Your task to perform on an android device: change the upload size in google photos Image 0: 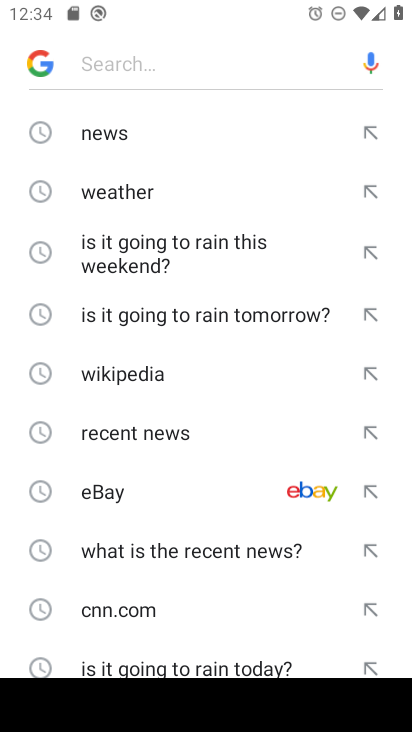
Step 0: press home button
Your task to perform on an android device: change the upload size in google photos Image 1: 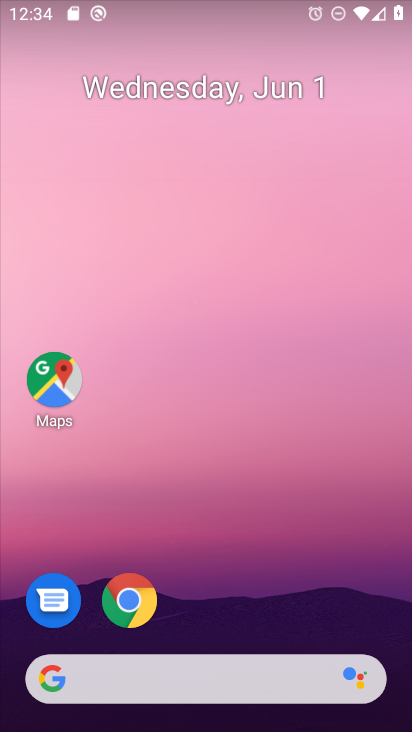
Step 1: drag from (226, 628) to (257, 190)
Your task to perform on an android device: change the upload size in google photos Image 2: 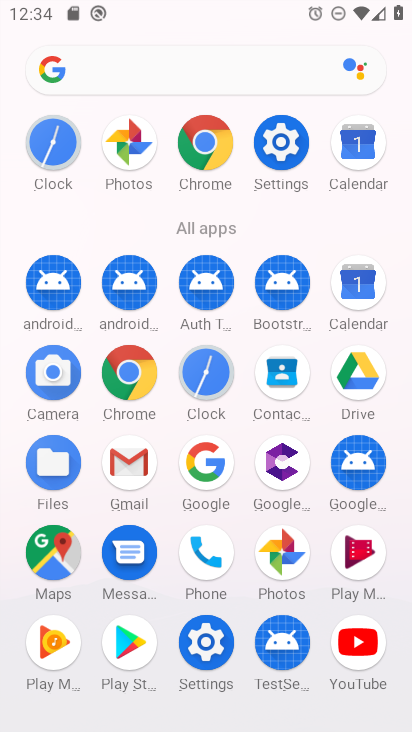
Step 2: click (280, 542)
Your task to perform on an android device: change the upload size in google photos Image 3: 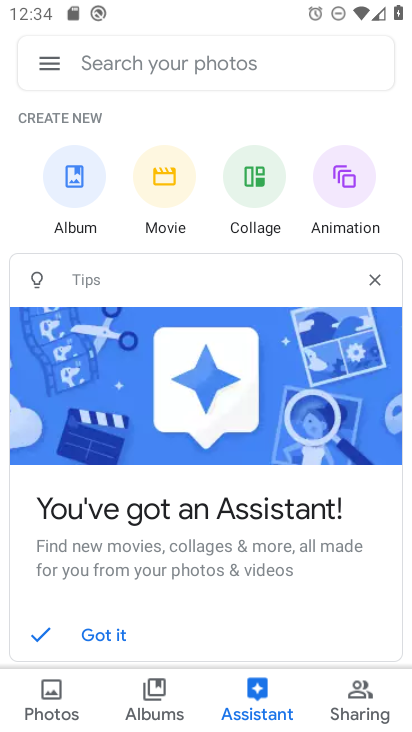
Step 3: click (45, 58)
Your task to perform on an android device: change the upload size in google photos Image 4: 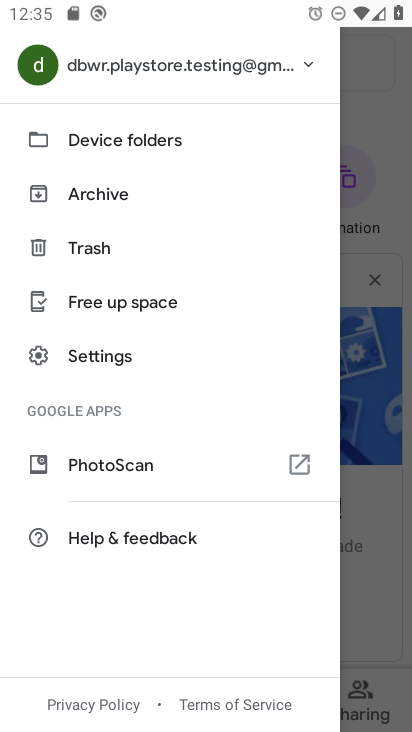
Step 4: click (142, 350)
Your task to perform on an android device: change the upload size in google photos Image 5: 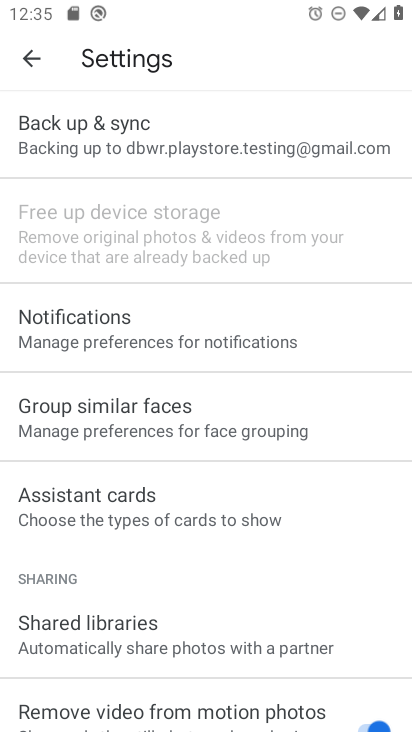
Step 5: click (110, 131)
Your task to perform on an android device: change the upload size in google photos Image 6: 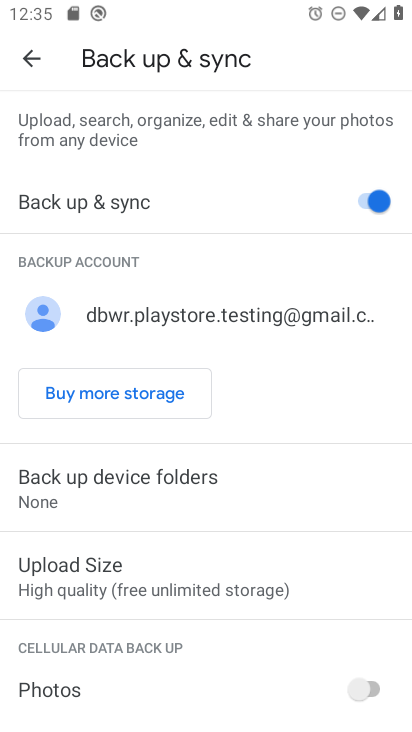
Step 6: click (126, 567)
Your task to perform on an android device: change the upload size in google photos Image 7: 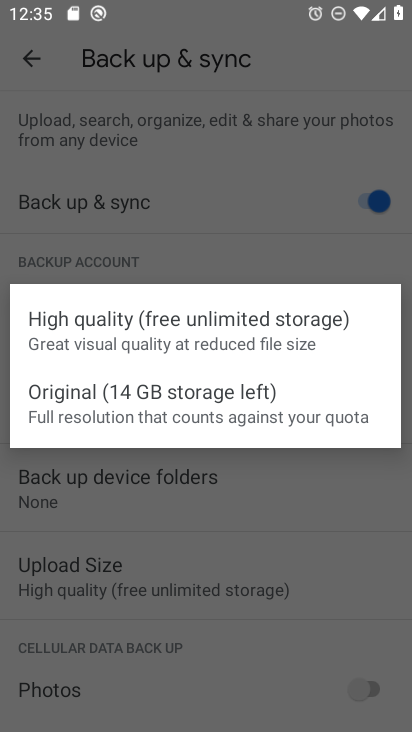
Step 7: click (148, 389)
Your task to perform on an android device: change the upload size in google photos Image 8: 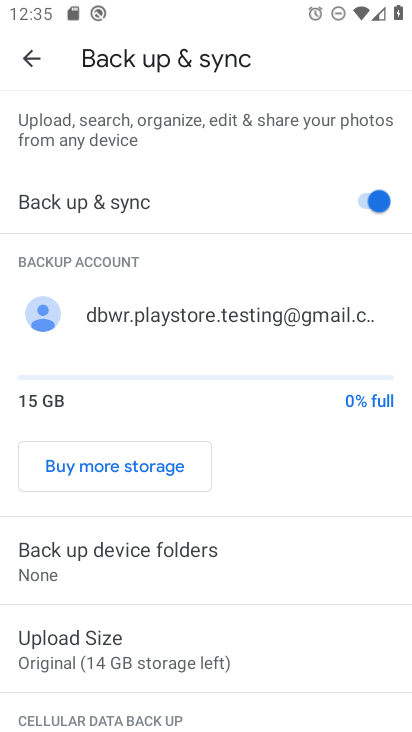
Step 8: task complete